Your task to perform on an android device: Open location settings Image 0: 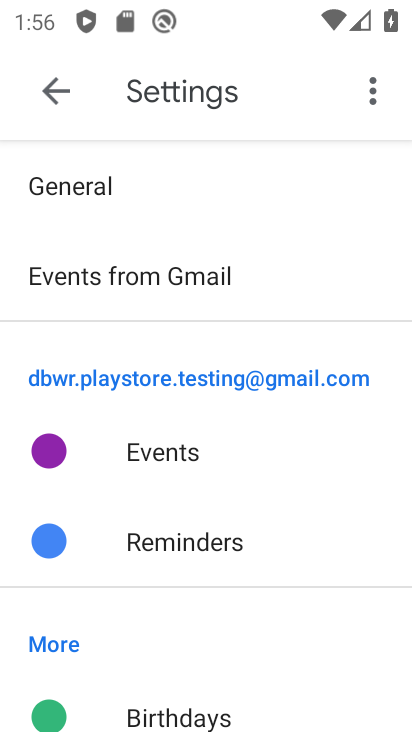
Step 0: press home button
Your task to perform on an android device: Open location settings Image 1: 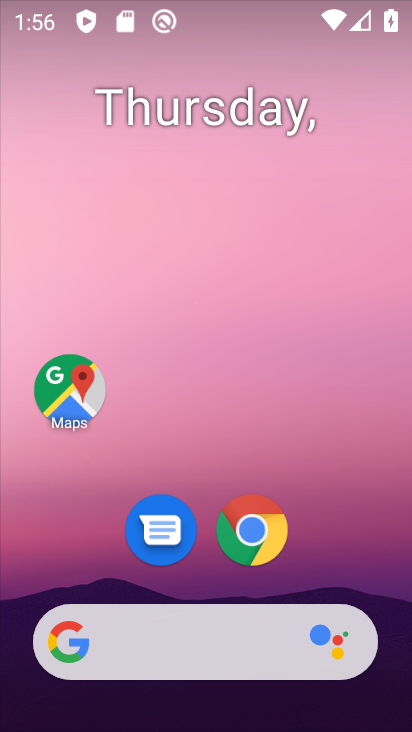
Step 1: drag from (87, 602) to (249, 66)
Your task to perform on an android device: Open location settings Image 2: 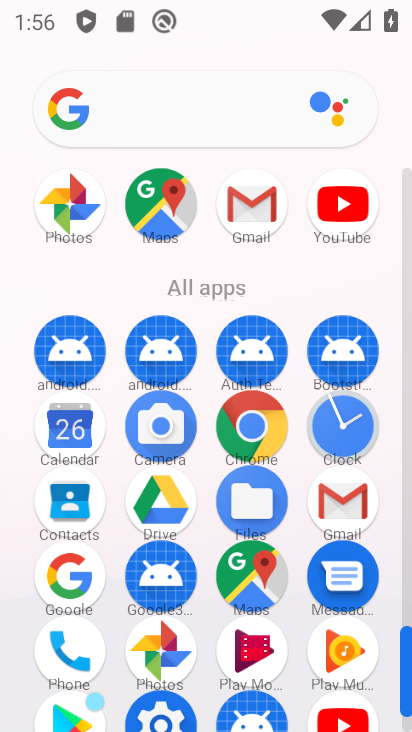
Step 2: drag from (180, 666) to (273, 341)
Your task to perform on an android device: Open location settings Image 3: 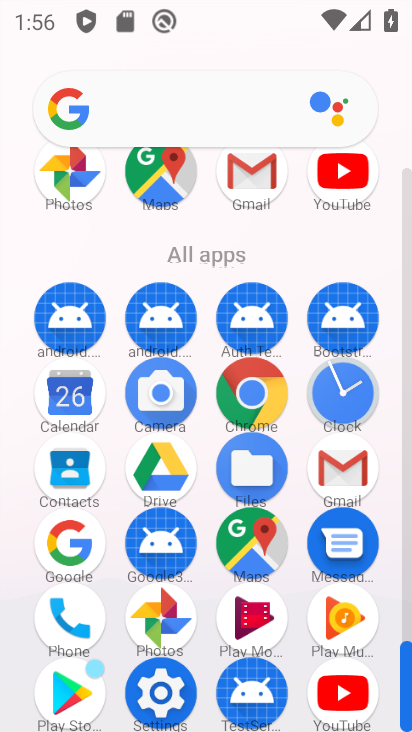
Step 3: click (170, 705)
Your task to perform on an android device: Open location settings Image 4: 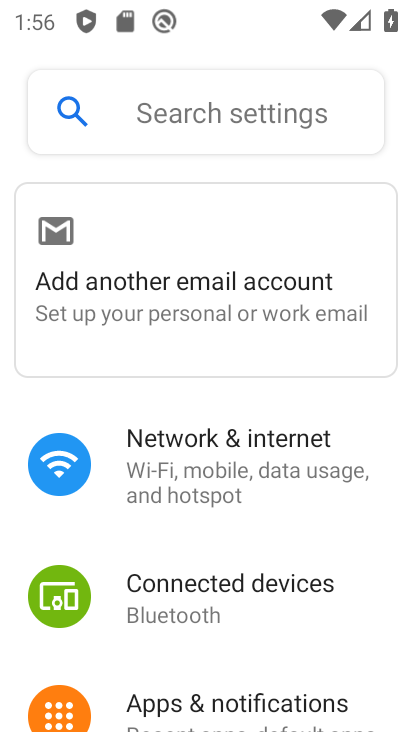
Step 4: drag from (159, 697) to (306, 238)
Your task to perform on an android device: Open location settings Image 5: 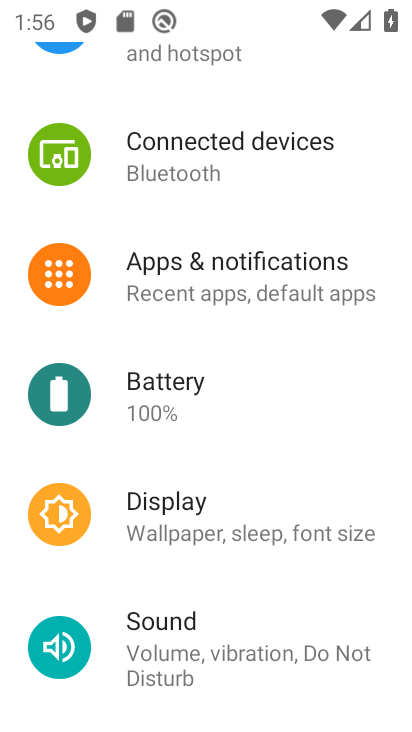
Step 5: drag from (149, 635) to (302, 239)
Your task to perform on an android device: Open location settings Image 6: 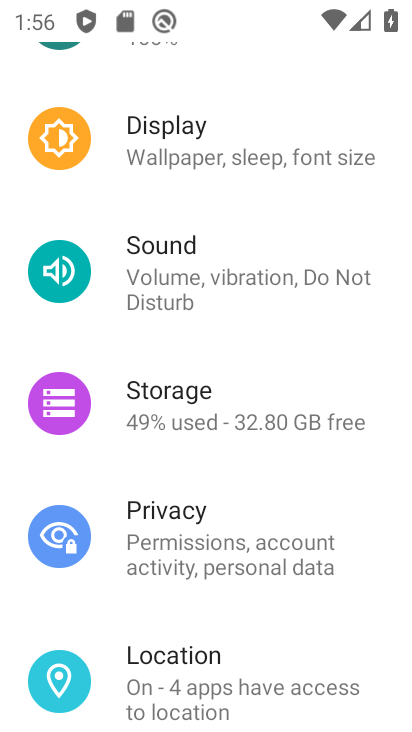
Step 6: drag from (181, 658) to (292, 421)
Your task to perform on an android device: Open location settings Image 7: 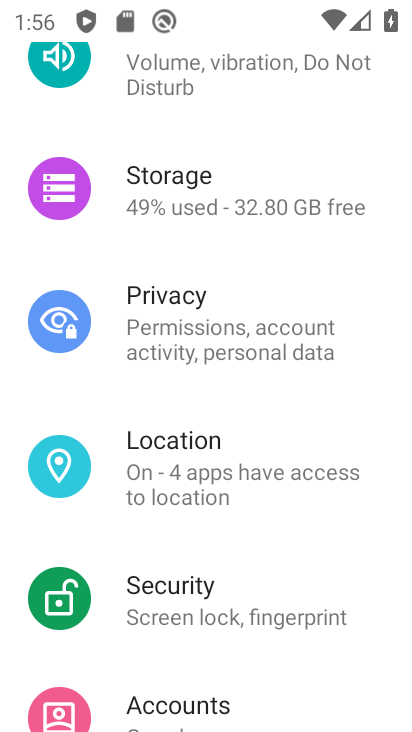
Step 7: click (175, 485)
Your task to perform on an android device: Open location settings Image 8: 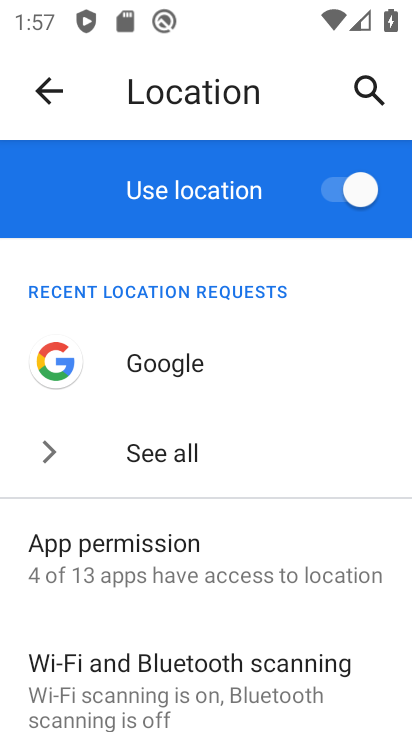
Step 8: task complete